Your task to perform on an android device: turn vacation reply on in the gmail app Image 0: 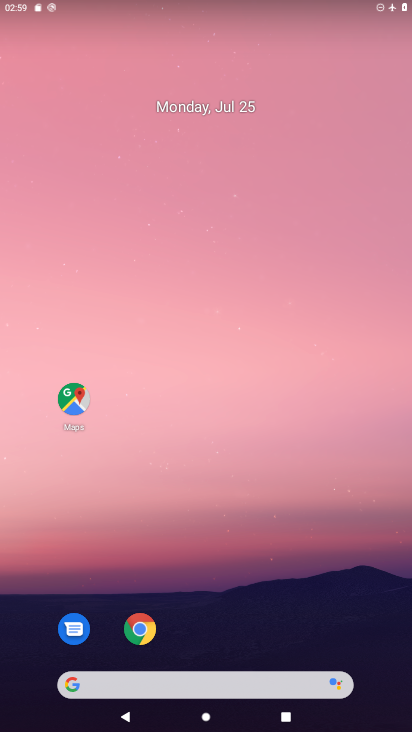
Step 0: drag from (325, 558) to (340, 53)
Your task to perform on an android device: turn vacation reply on in the gmail app Image 1: 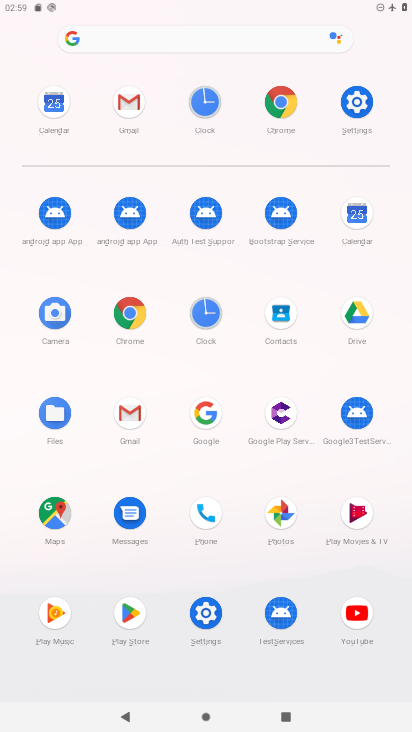
Step 1: click (122, 398)
Your task to perform on an android device: turn vacation reply on in the gmail app Image 2: 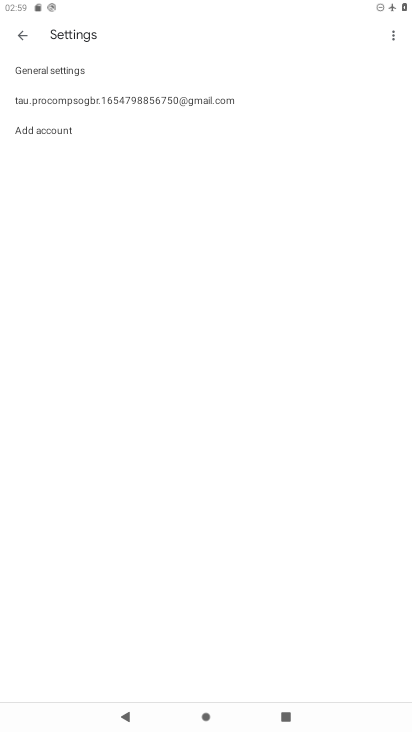
Step 2: click (34, 102)
Your task to perform on an android device: turn vacation reply on in the gmail app Image 3: 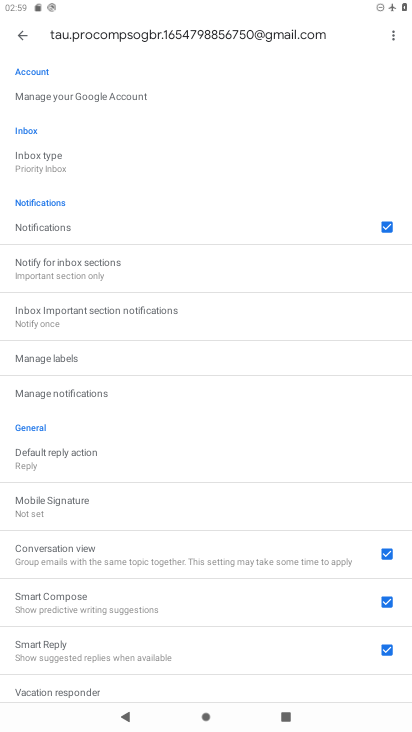
Step 3: drag from (171, 563) to (190, 200)
Your task to perform on an android device: turn vacation reply on in the gmail app Image 4: 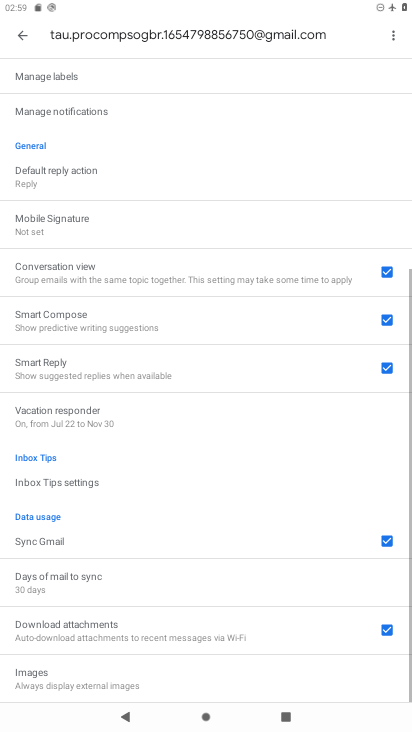
Step 4: drag from (212, 571) to (222, 181)
Your task to perform on an android device: turn vacation reply on in the gmail app Image 5: 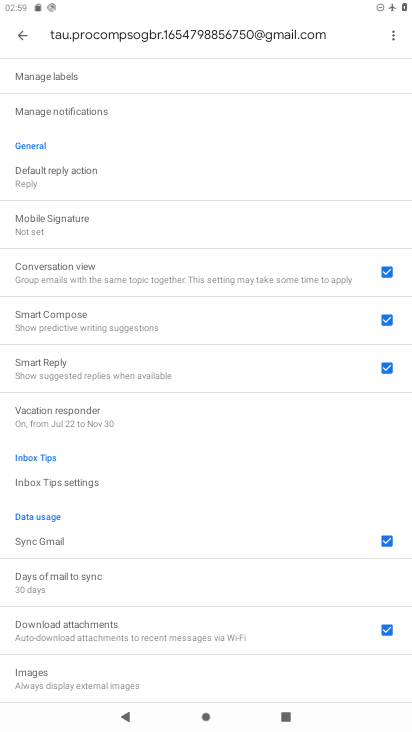
Step 5: click (77, 413)
Your task to perform on an android device: turn vacation reply on in the gmail app Image 6: 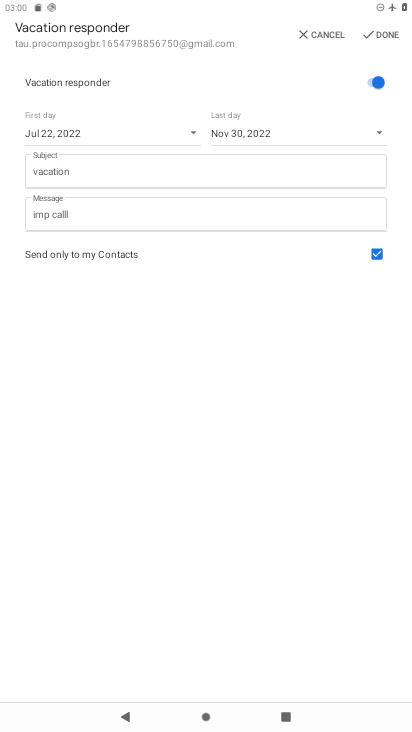
Step 6: click (376, 35)
Your task to perform on an android device: turn vacation reply on in the gmail app Image 7: 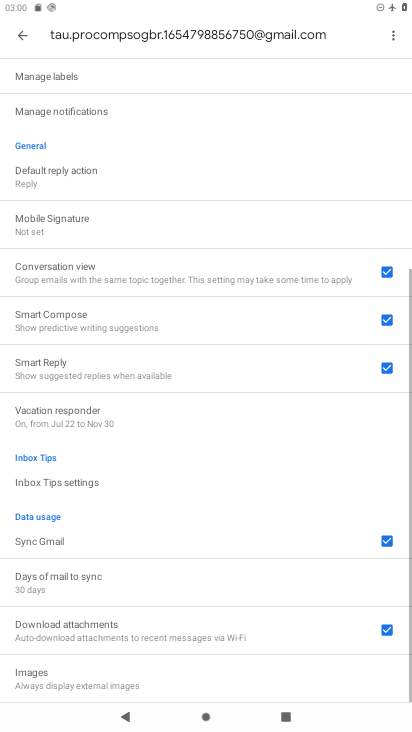
Step 7: task complete